Your task to perform on an android device: Add razer thresher to the cart on amazon.com, then select checkout. Image 0: 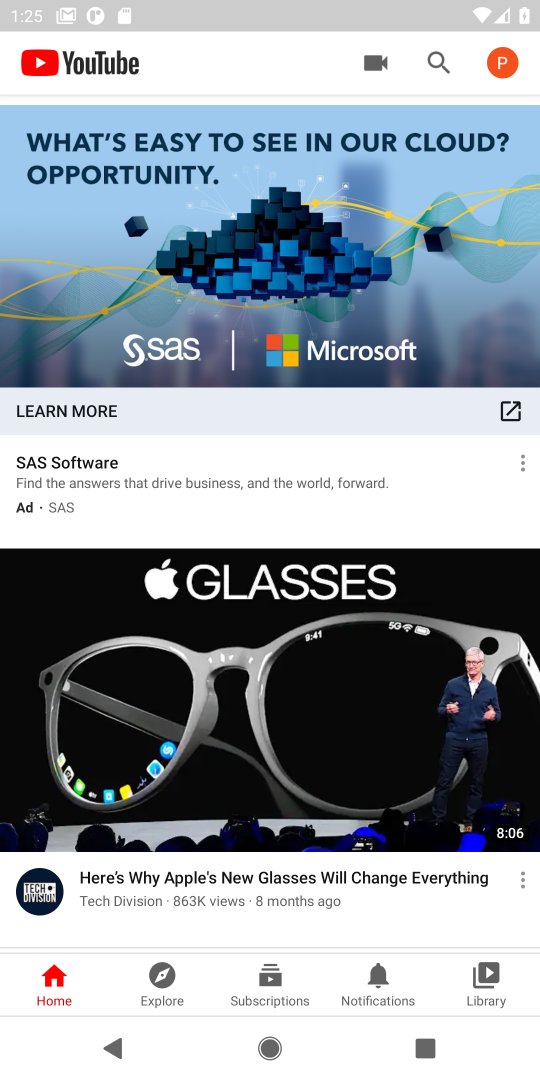
Step 0: press home button
Your task to perform on an android device: Add razer thresher to the cart on amazon.com, then select checkout. Image 1: 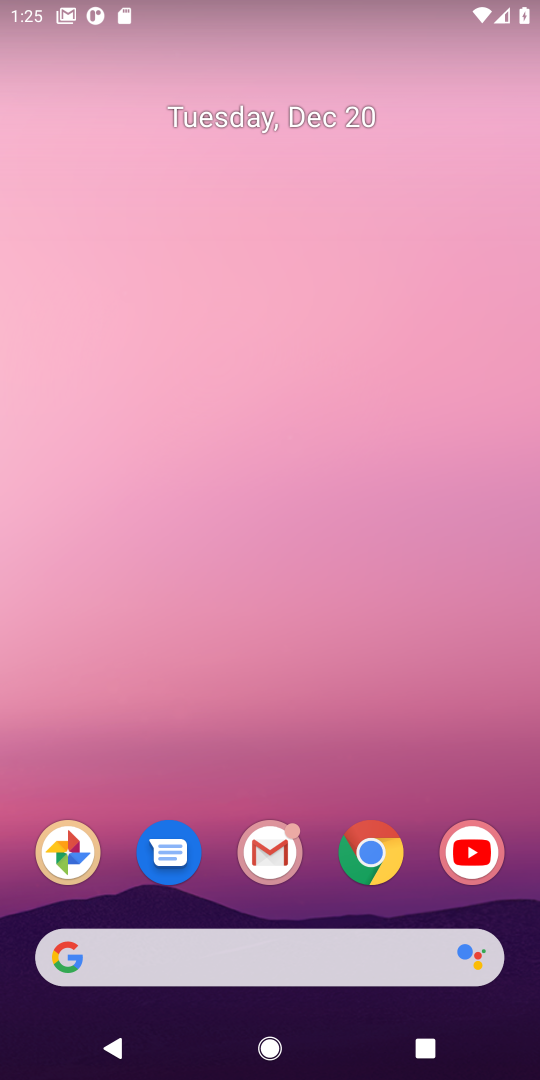
Step 1: click (374, 859)
Your task to perform on an android device: Add razer thresher to the cart on amazon.com, then select checkout. Image 2: 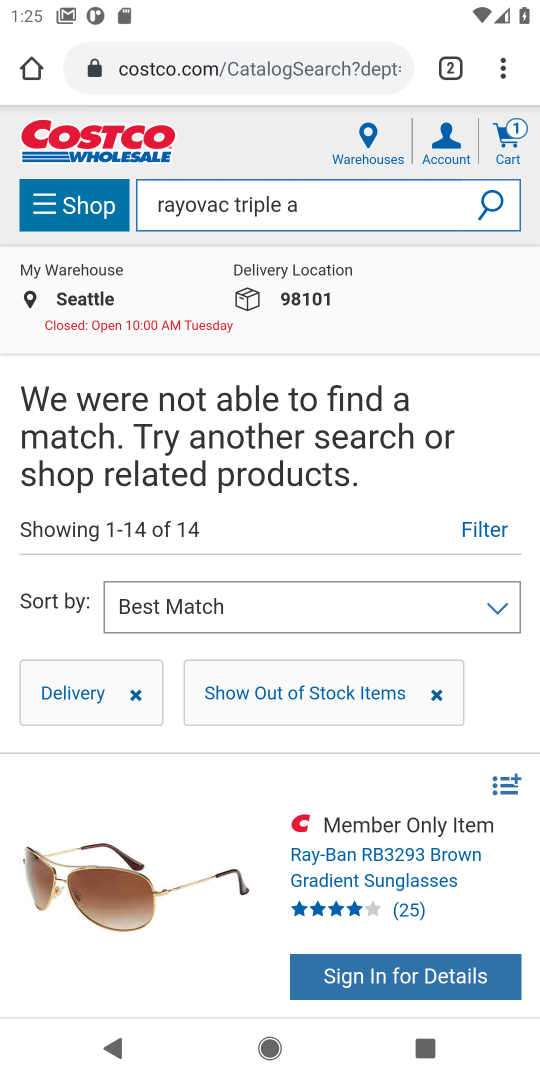
Step 2: click (242, 79)
Your task to perform on an android device: Add razer thresher to the cart on amazon.com, then select checkout. Image 3: 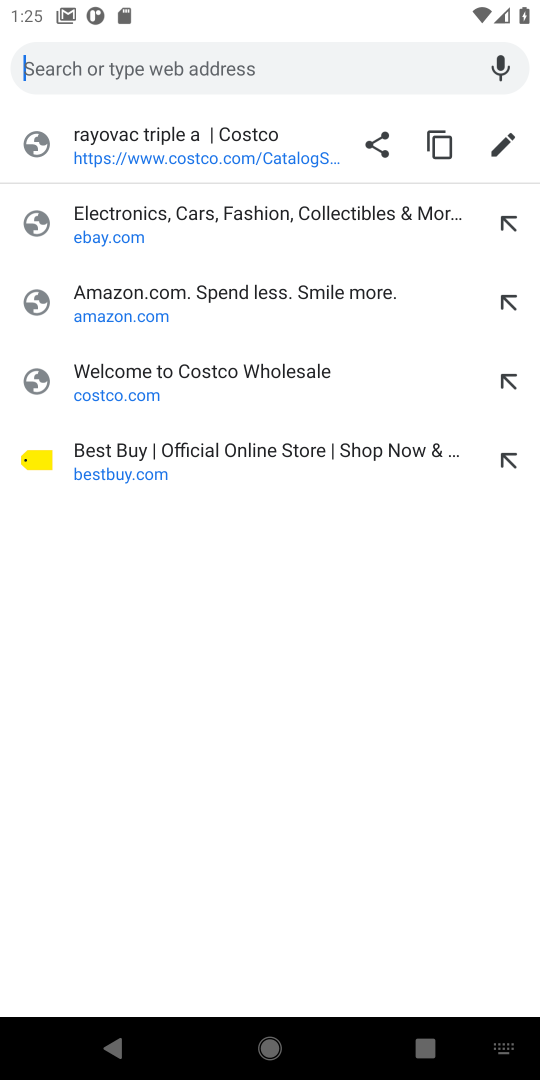
Step 3: click (133, 309)
Your task to perform on an android device: Add razer thresher to the cart on amazon.com, then select checkout. Image 4: 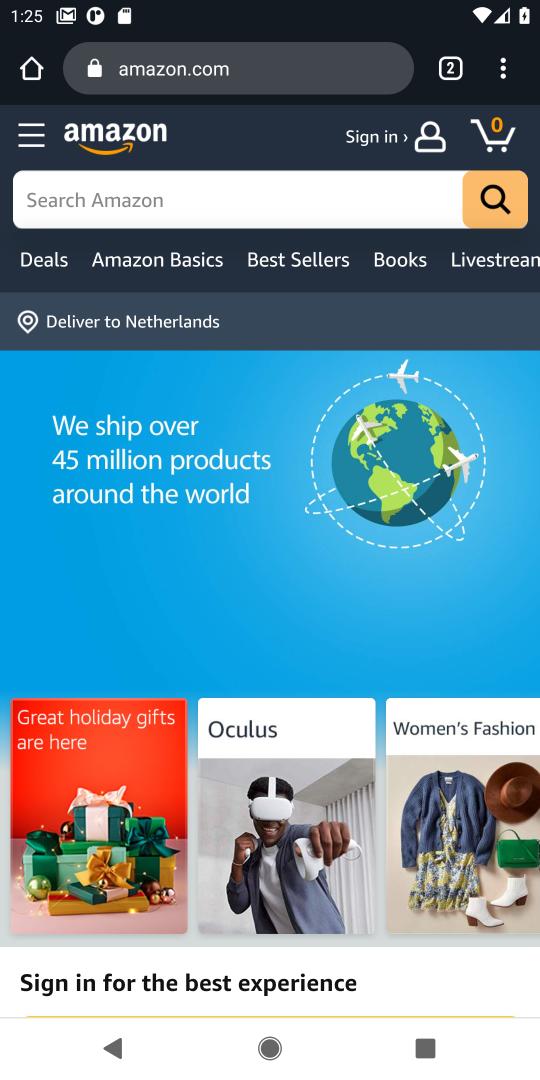
Step 4: click (72, 204)
Your task to perform on an android device: Add razer thresher to the cart on amazon.com, then select checkout. Image 5: 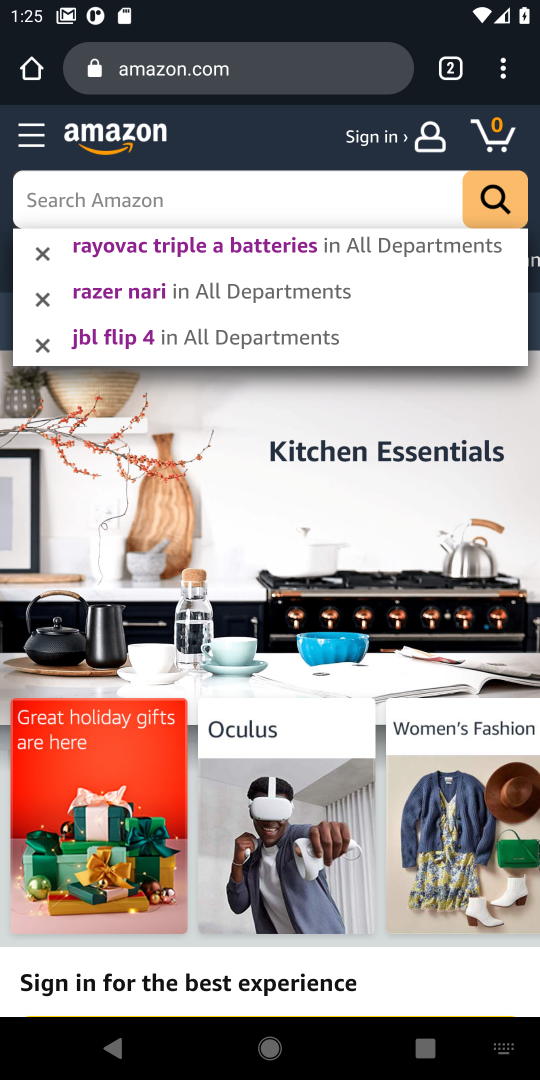
Step 5: type "razer thresher"
Your task to perform on an android device: Add razer thresher to the cart on amazon.com, then select checkout. Image 6: 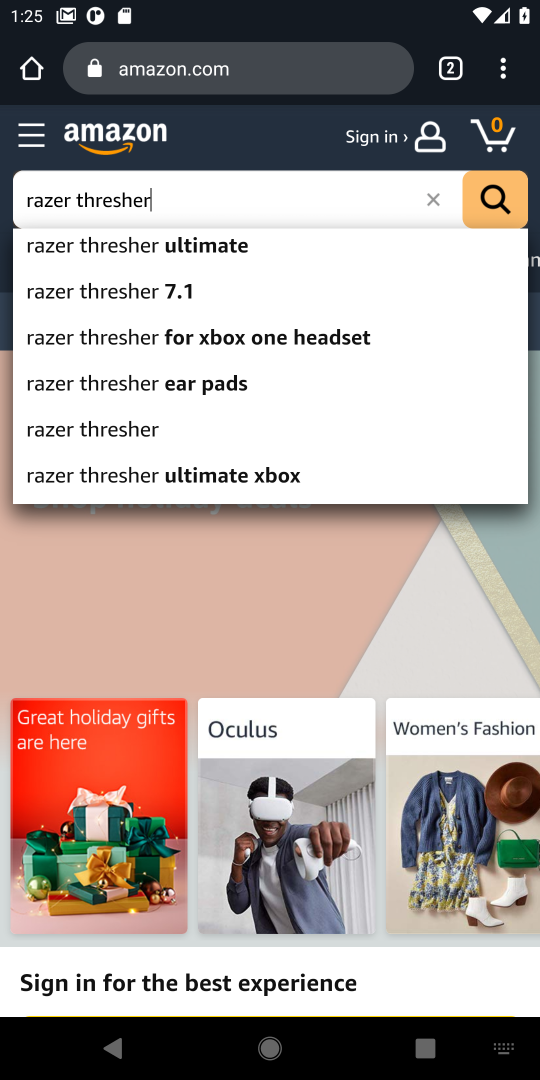
Step 6: click (101, 432)
Your task to perform on an android device: Add razer thresher to the cart on amazon.com, then select checkout. Image 7: 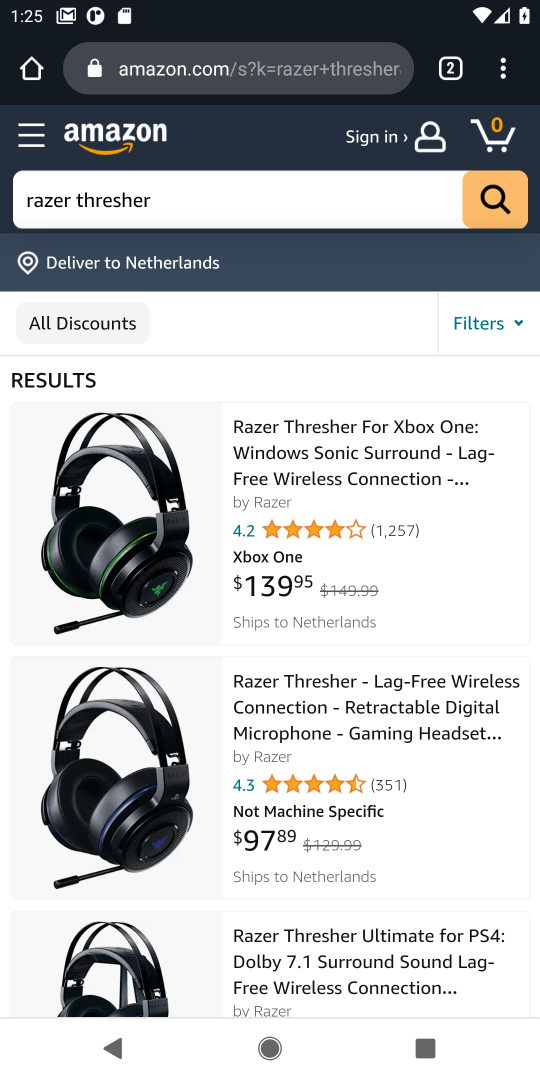
Step 7: click (326, 473)
Your task to perform on an android device: Add razer thresher to the cart on amazon.com, then select checkout. Image 8: 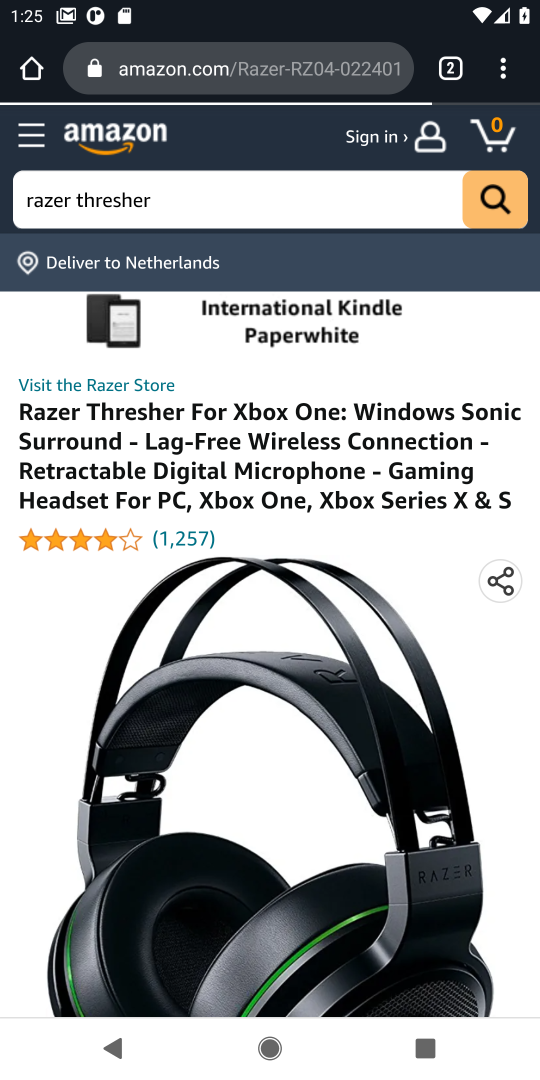
Step 8: drag from (304, 660) to (284, 275)
Your task to perform on an android device: Add razer thresher to the cart on amazon.com, then select checkout. Image 9: 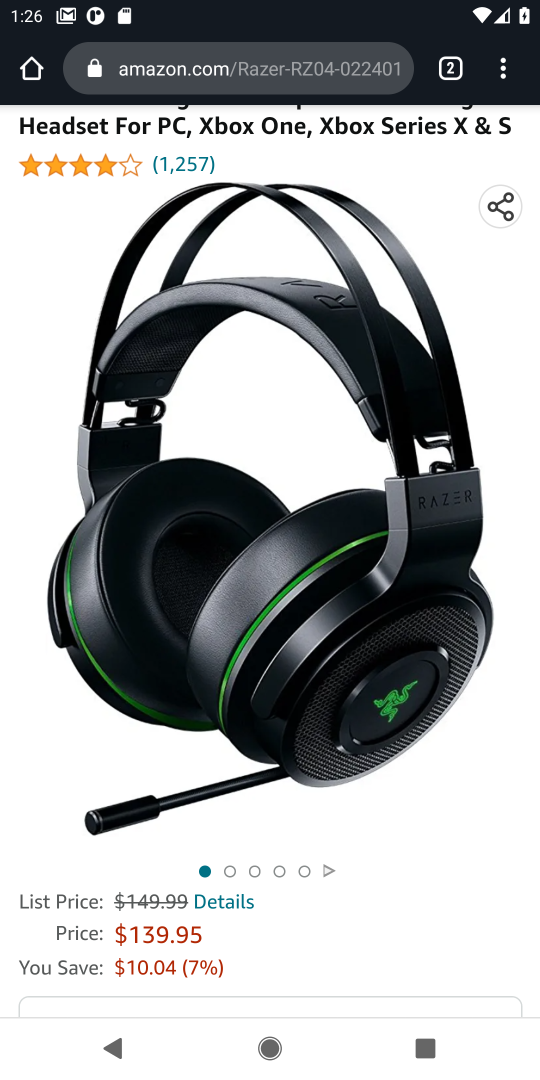
Step 9: drag from (273, 646) to (256, 185)
Your task to perform on an android device: Add razer thresher to the cart on amazon.com, then select checkout. Image 10: 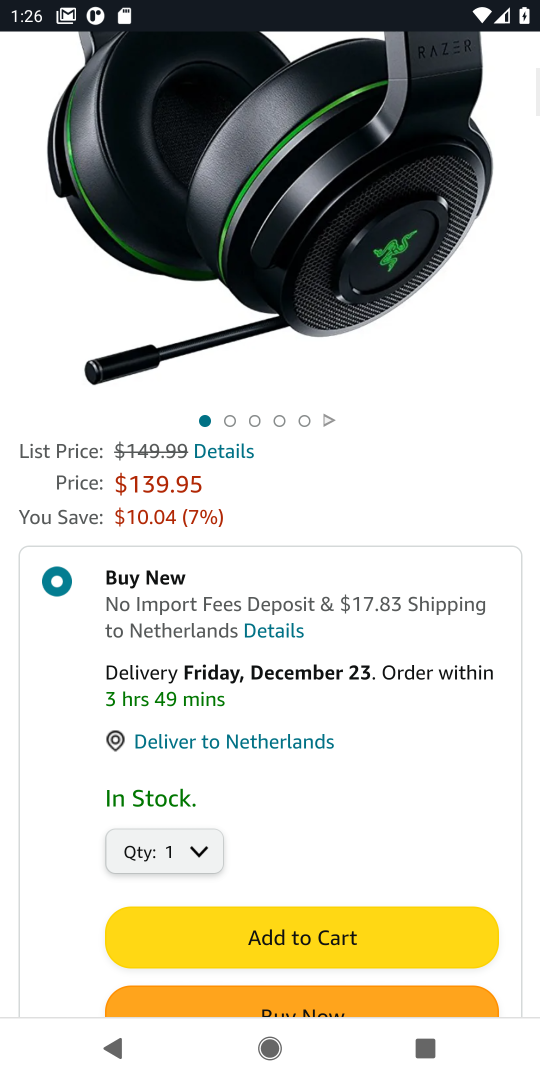
Step 10: drag from (269, 649) to (251, 310)
Your task to perform on an android device: Add razer thresher to the cart on amazon.com, then select checkout. Image 11: 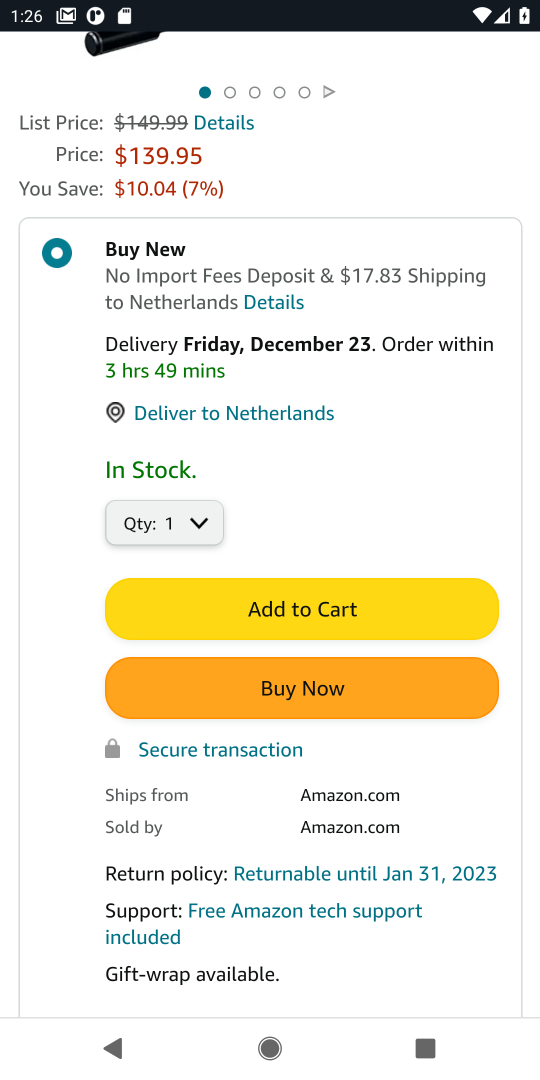
Step 11: click (262, 607)
Your task to perform on an android device: Add razer thresher to the cart on amazon.com, then select checkout. Image 12: 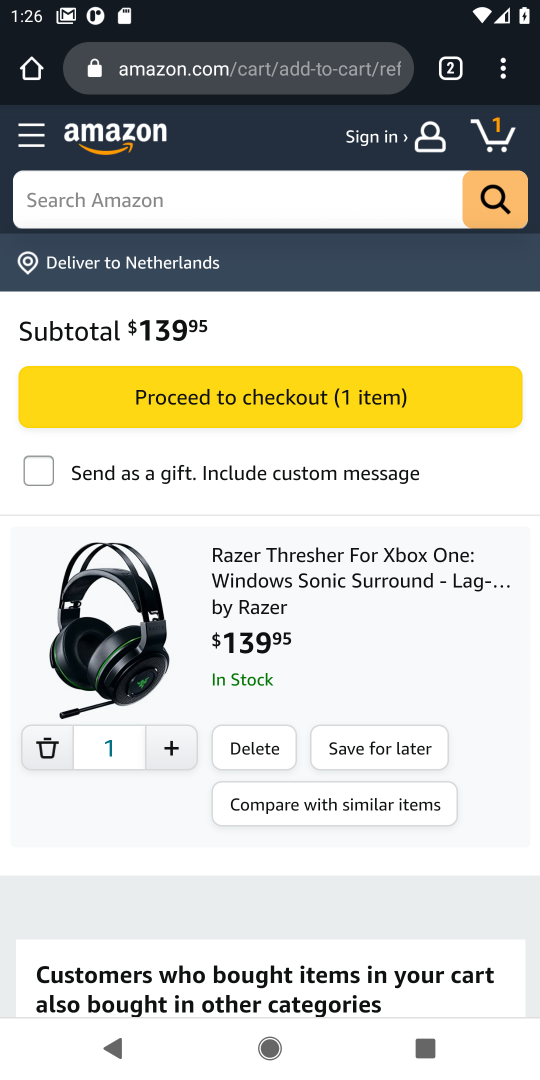
Step 12: click (273, 408)
Your task to perform on an android device: Add razer thresher to the cart on amazon.com, then select checkout. Image 13: 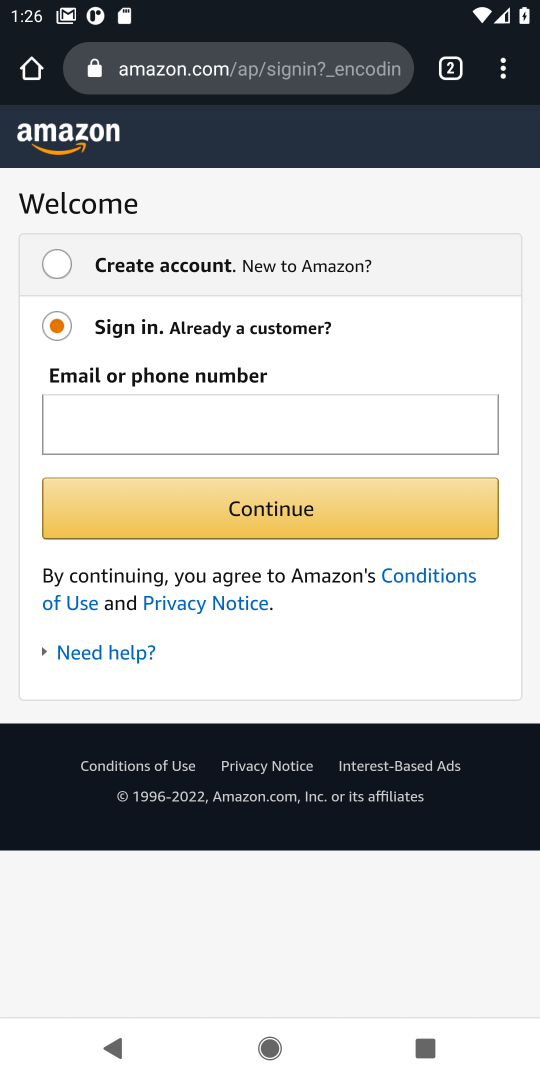
Step 13: task complete